Your task to perform on an android device: open app "Spotify" (install if not already installed) and go to login screen Image 0: 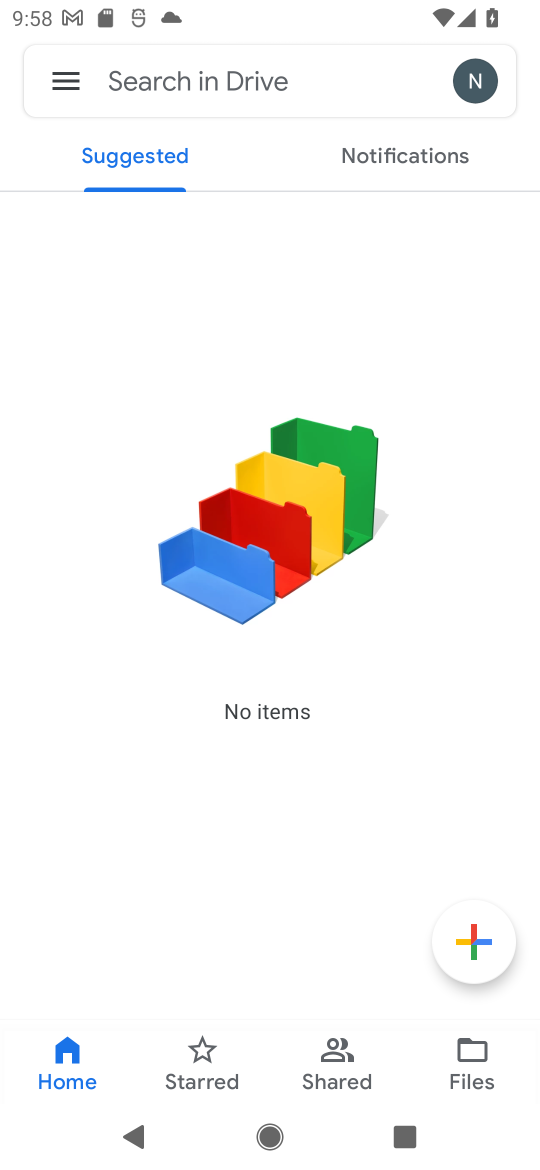
Step 0: press home button
Your task to perform on an android device: open app "Spotify" (install if not already installed) and go to login screen Image 1: 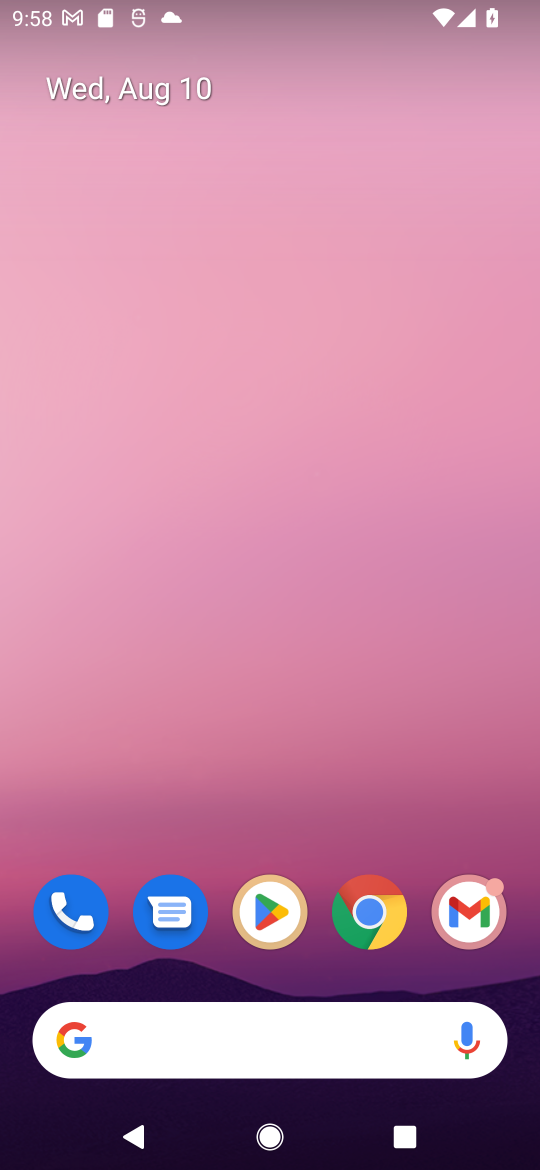
Step 1: drag from (505, 975) to (226, 13)
Your task to perform on an android device: open app "Spotify" (install if not already installed) and go to login screen Image 2: 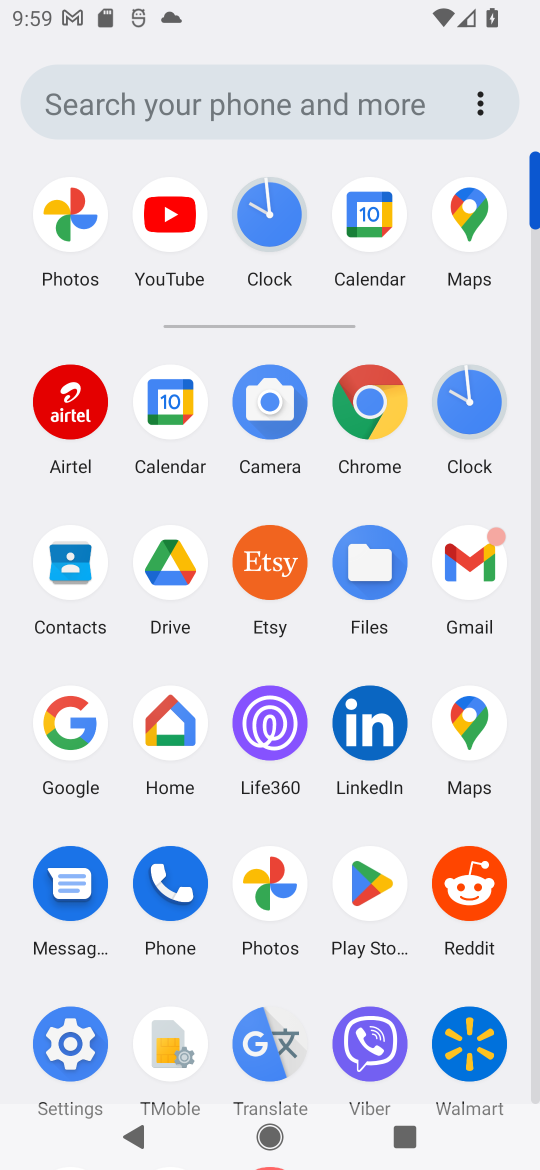
Step 2: click (389, 883)
Your task to perform on an android device: open app "Spotify" (install if not already installed) and go to login screen Image 3: 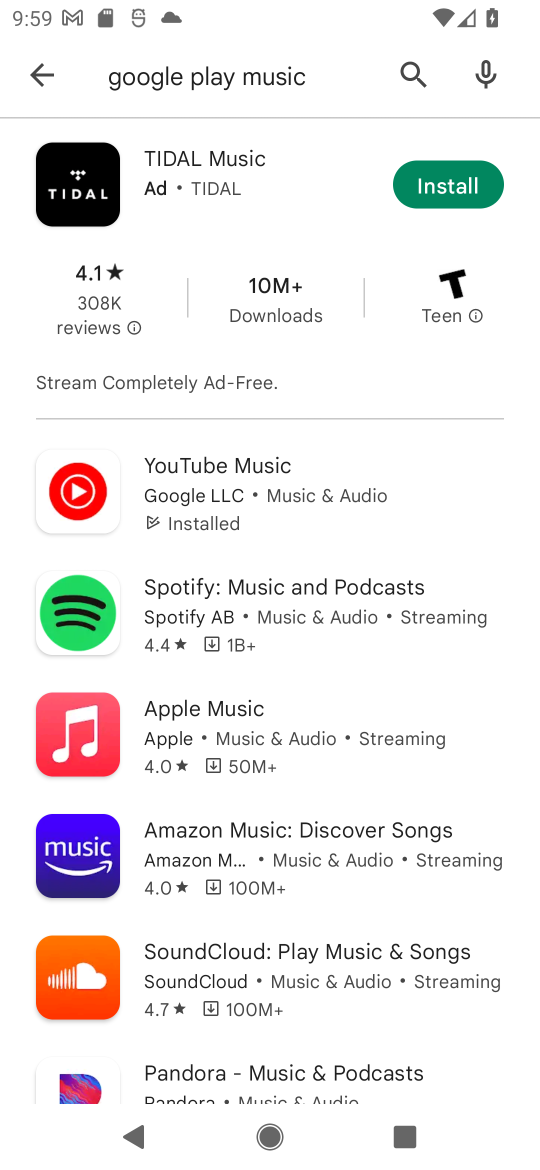
Step 3: press back button
Your task to perform on an android device: open app "Spotify" (install if not already installed) and go to login screen Image 4: 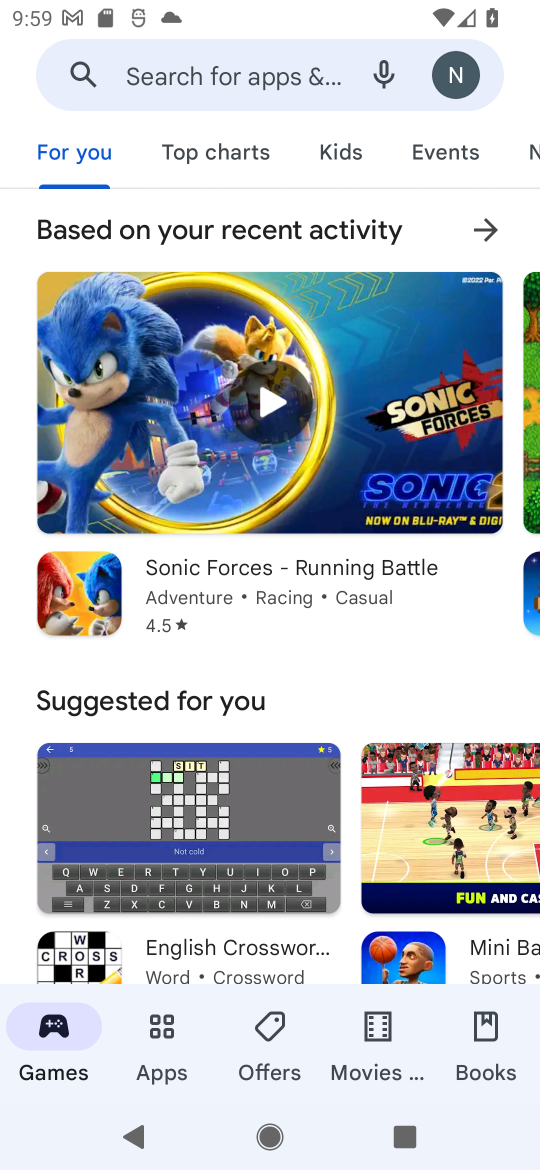
Step 4: click (234, 80)
Your task to perform on an android device: open app "Spotify" (install if not already installed) and go to login screen Image 5: 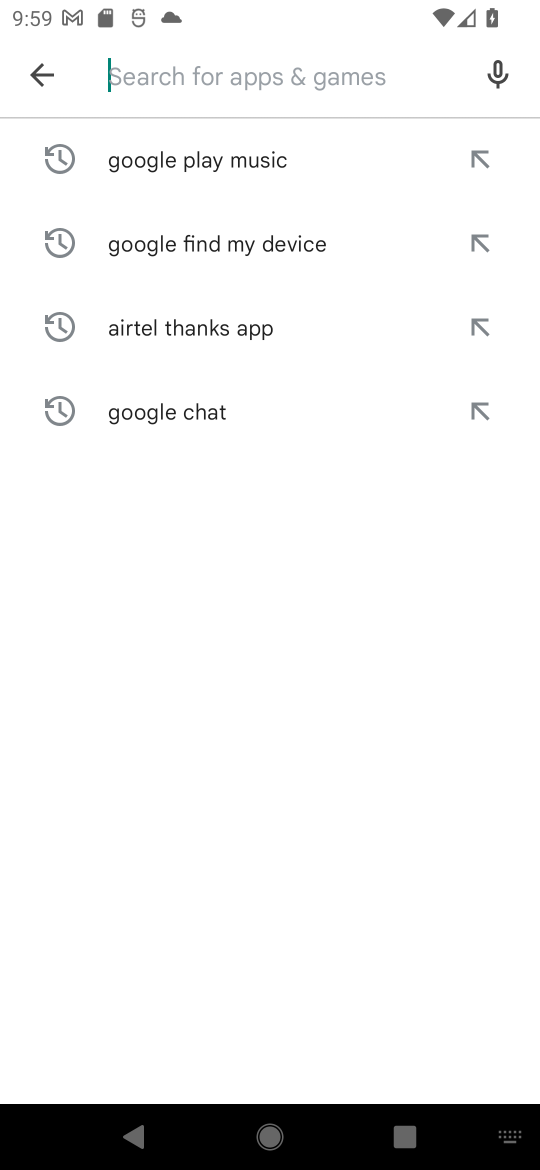
Step 5: type "Spotify"
Your task to perform on an android device: open app "Spotify" (install if not already installed) and go to login screen Image 6: 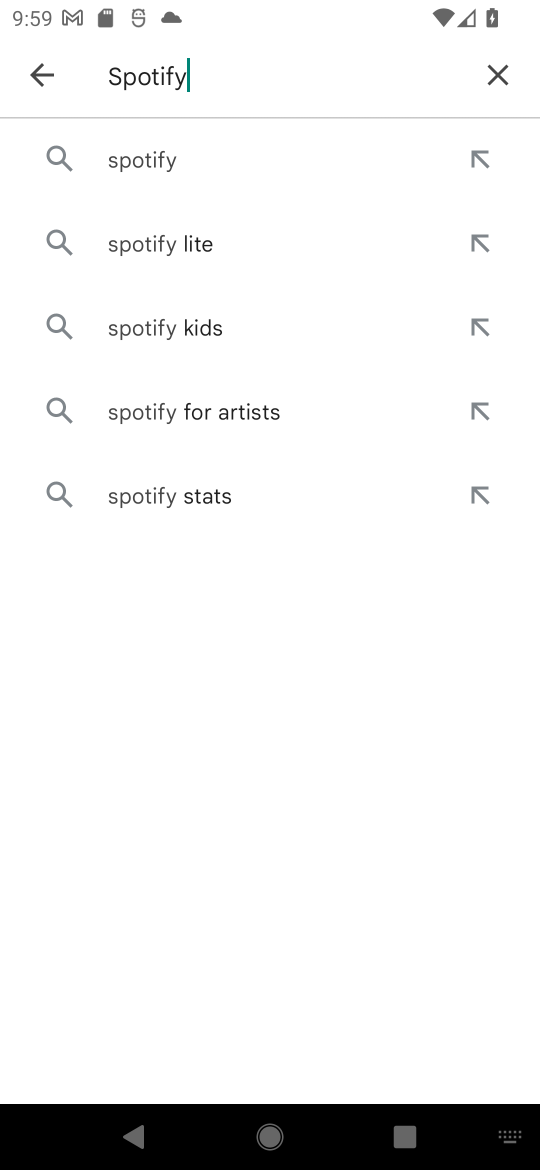
Step 6: click (132, 150)
Your task to perform on an android device: open app "Spotify" (install if not already installed) and go to login screen Image 7: 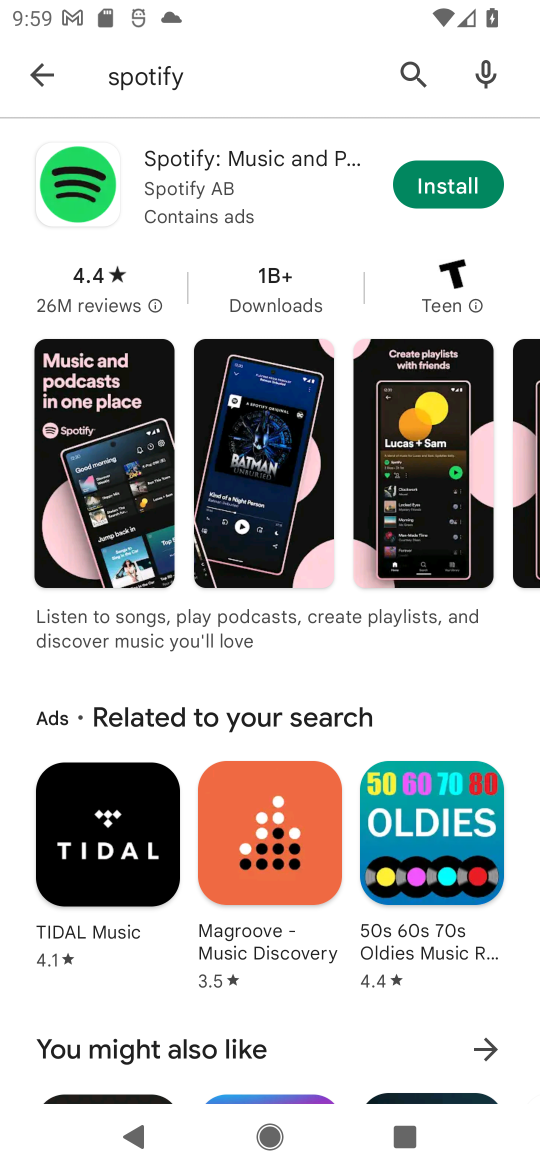
Step 7: task complete